Your task to perform on an android device: Clear the cart on amazon.com. Add razer blade to the cart on amazon.com Image 0: 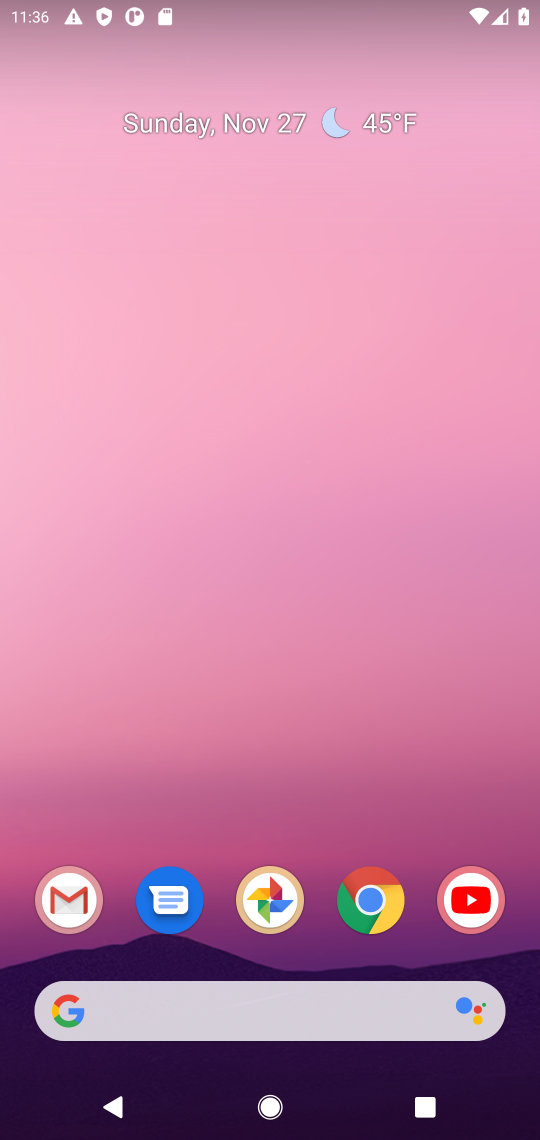
Step 0: click (374, 905)
Your task to perform on an android device: Clear the cart on amazon.com. Add razer blade to the cart on amazon.com Image 1: 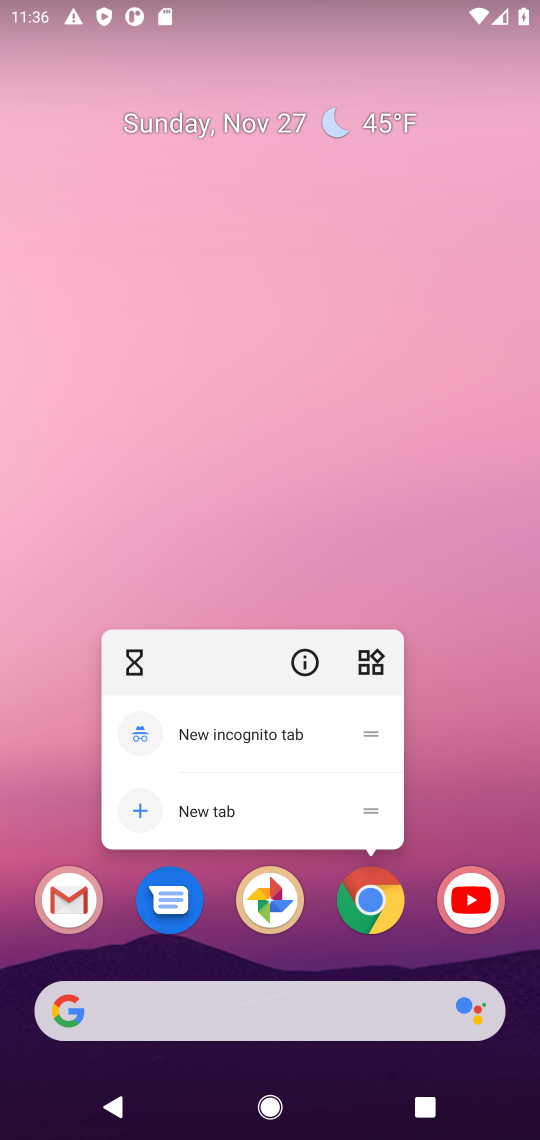
Step 1: click (371, 908)
Your task to perform on an android device: Clear the cart on amazon.com. Add razer blade to the cart on amazon.com Image 2: 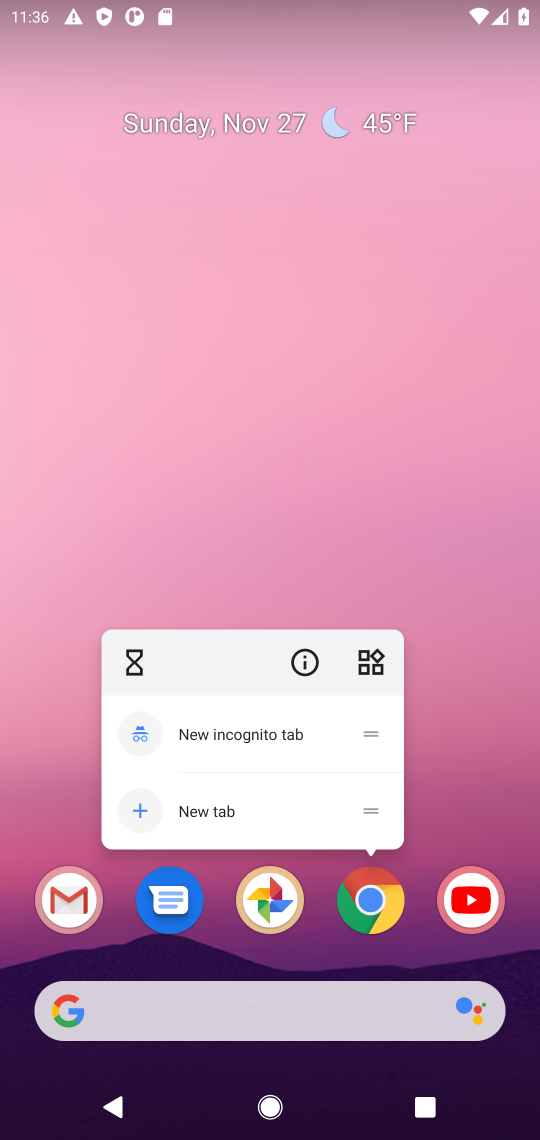
Step 2: click (371, 908)
Your task to perform on an android device: Clear the cart on amazon.com. Add razer blade to the cart on amazon.com Image 3: 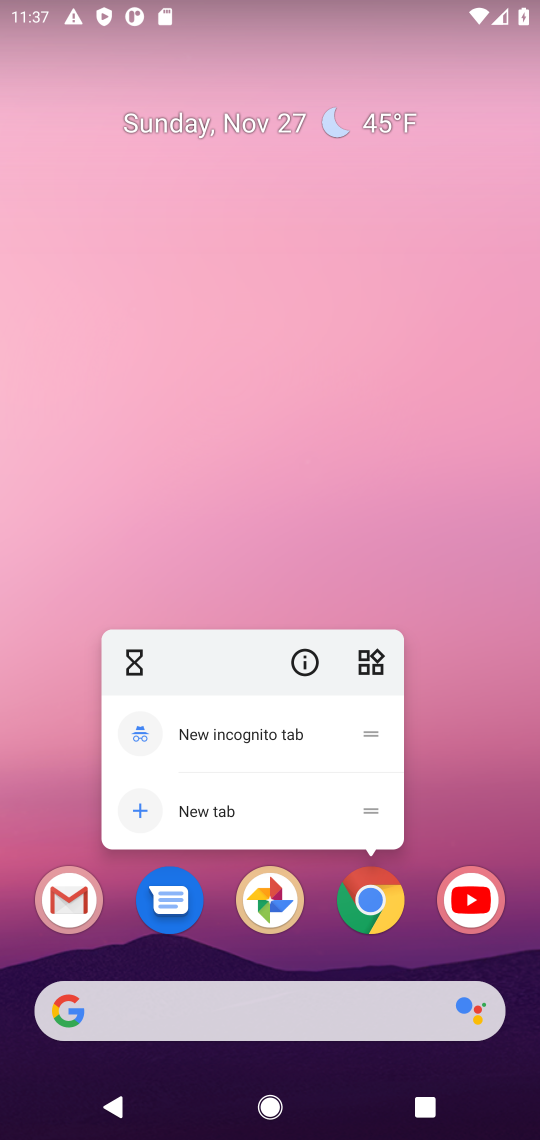
Step 3: click (359, 912)
Your task to perform on an android device: Clear the cart on amazon.com. Add razer blade to the cart on amazon.com Image 4: 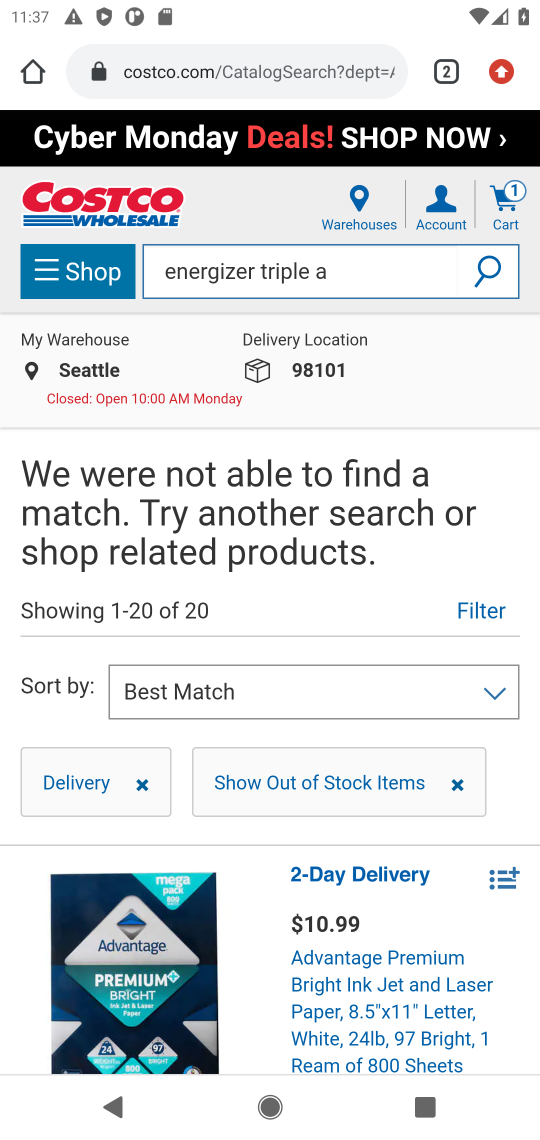
Step 4: click (192, 77)
Your task to perform on an android device: Clear the cart on amazon.com. Add razer blade to the cart on amazon.com Image 5: 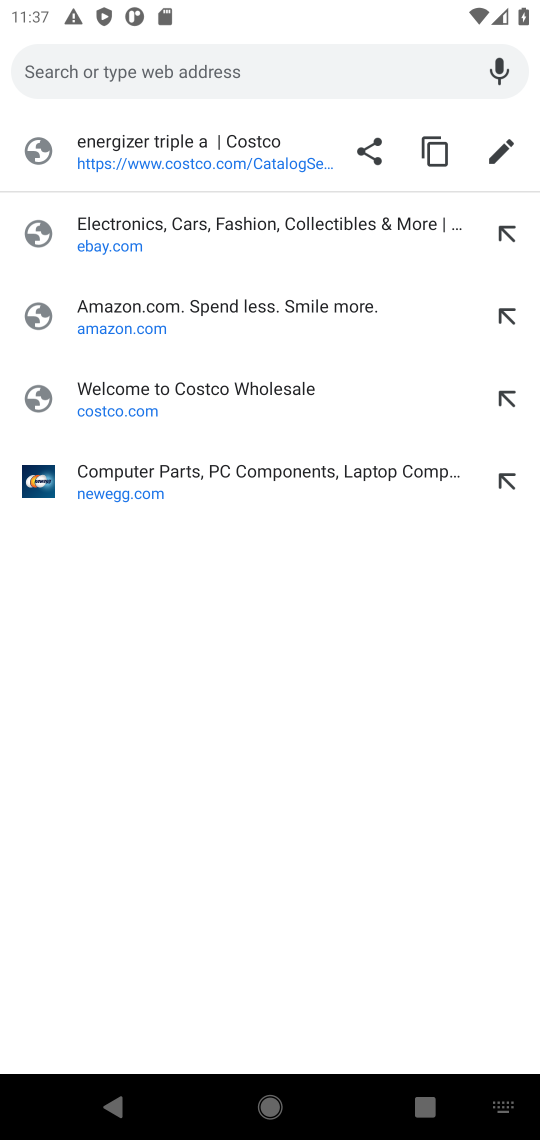
Step 5: click (95, 325)
Your task to perform on an android device: Clear the cart on amazon.com. Add razer blade to the cart on amazon.com Image 6: 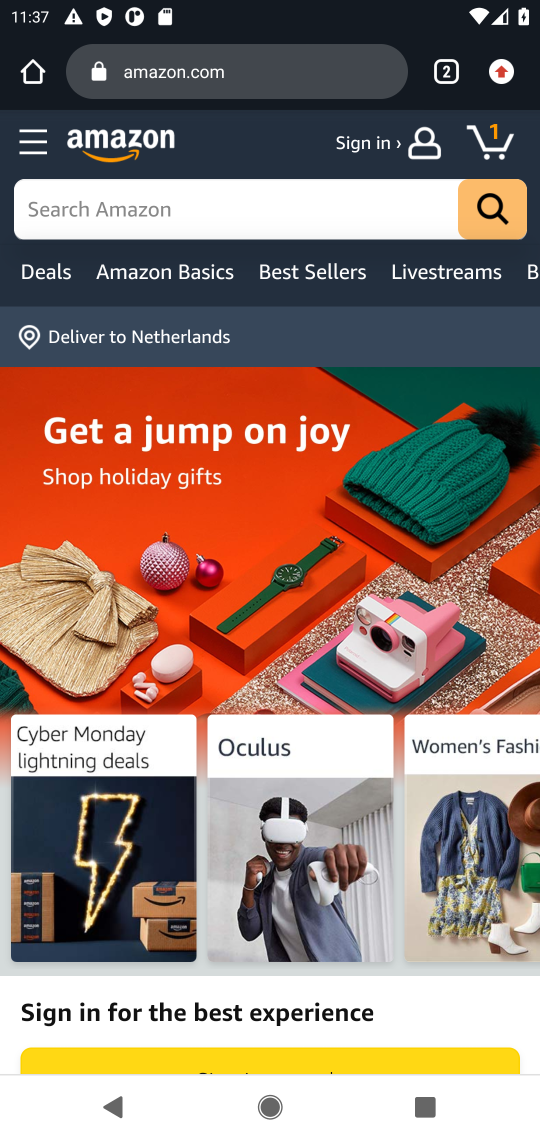
Step 6: click (489, 139)
Your task to perform on an android device: Clear the cart on amazon.com. Add razer blade to the cart on amazon.com Image 7: 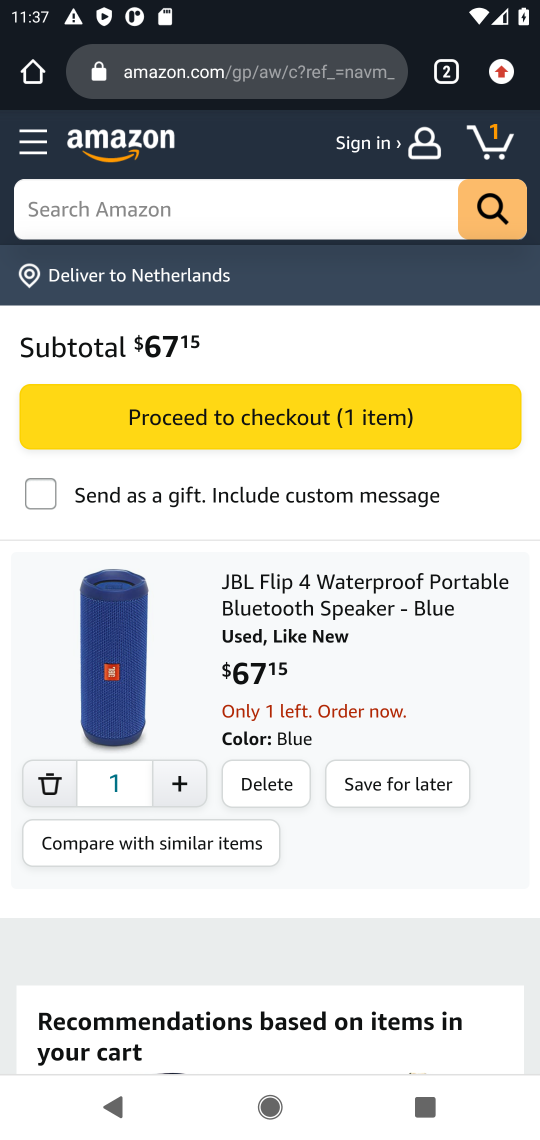
Step 7: click (268, 778)
Your task to perform on an android device: Clear the cart on amazon.com. Add razer blade to the cart on amazon.com Image 8: 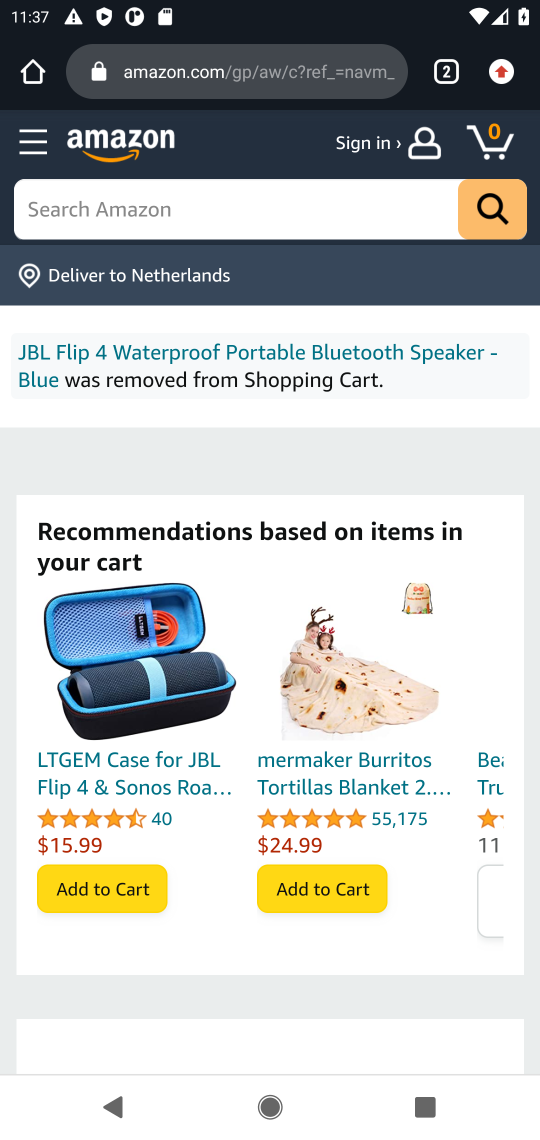
Step 8: click (137, 215)
Your task to perform on an android device: Clear the cart on amazon.com. Add razer blade to the cart on amazon.com Image 9: 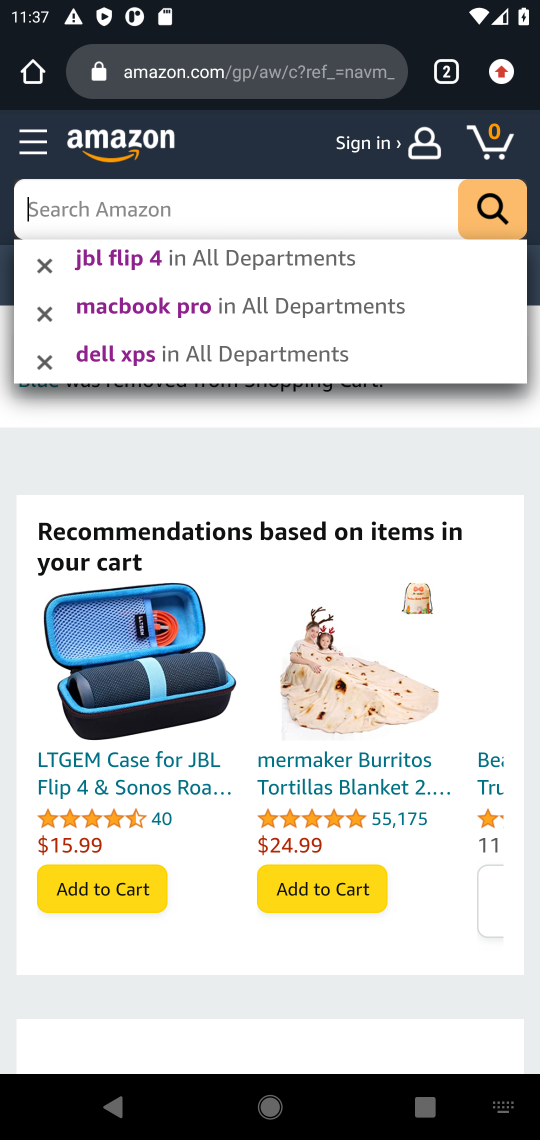
Step 9: type "razer blade"
Your task to perform on an android device: Clear the cart on amazon.com. Add razer blade to the cart on amazon.com Image 10: 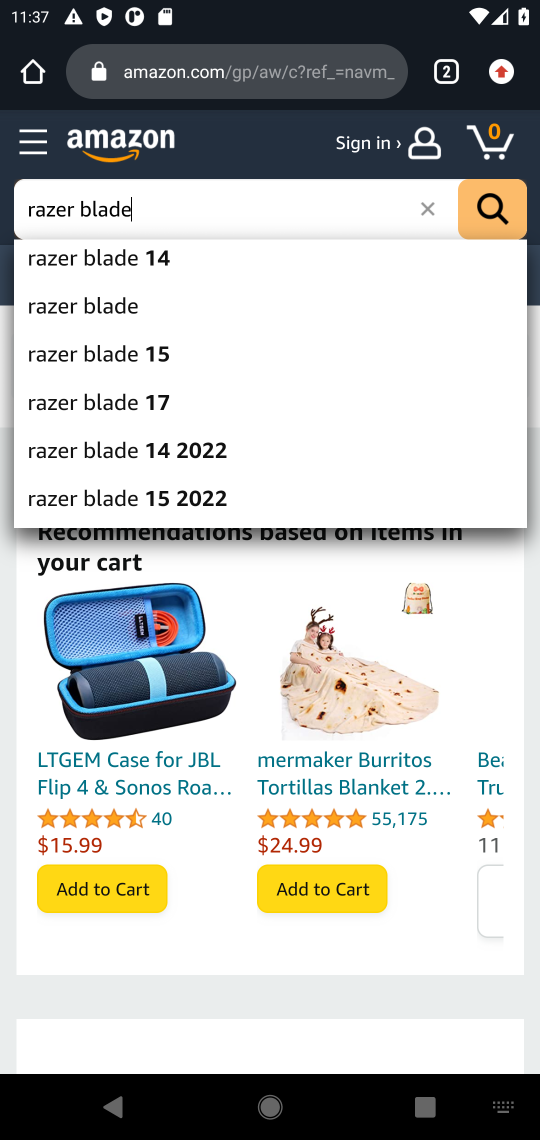
Step 10: click (89, 312)
Your task to perform on an android device: Clear the cart on amazon.com. Add razer blade to the cart on amazon.com Image 11: 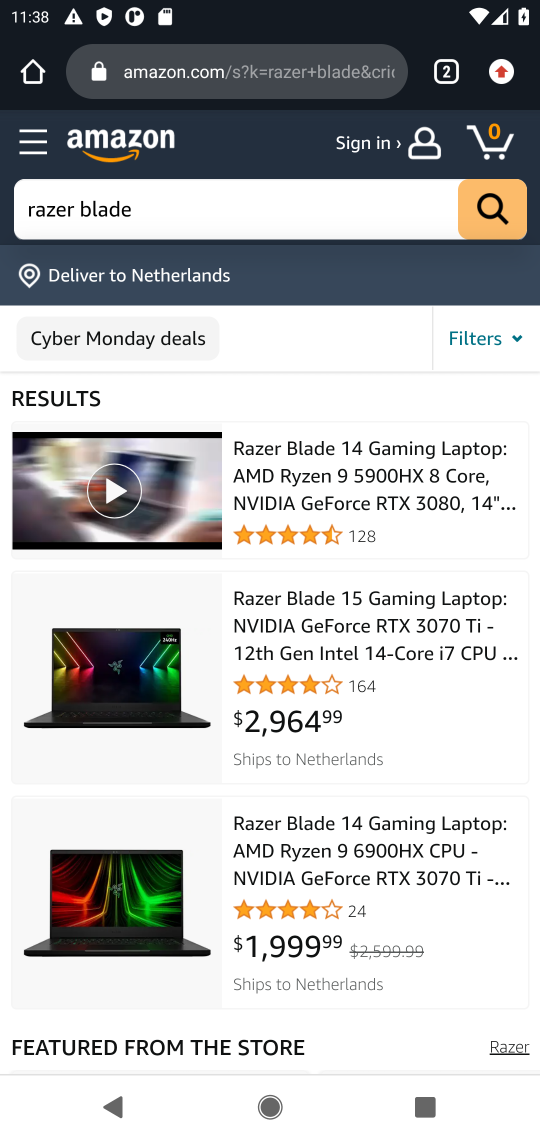
Step 11: click (247, 651)
Your task to perform on an android device: Clear the cart on amazon.com. Add razer blade to the cart on amazon.com Image 12: 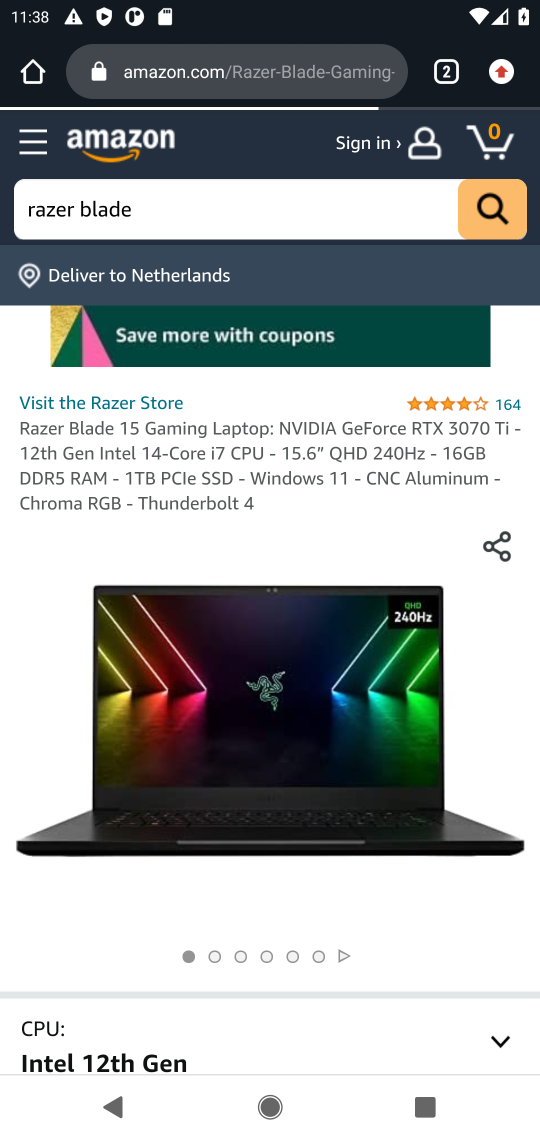
Step 12: drag from (372, 732) to (393, 414)
Your task to perform on an android device: Clear the cart on amazon.com. Add razer blade to the cart on amazon.com Image 13: 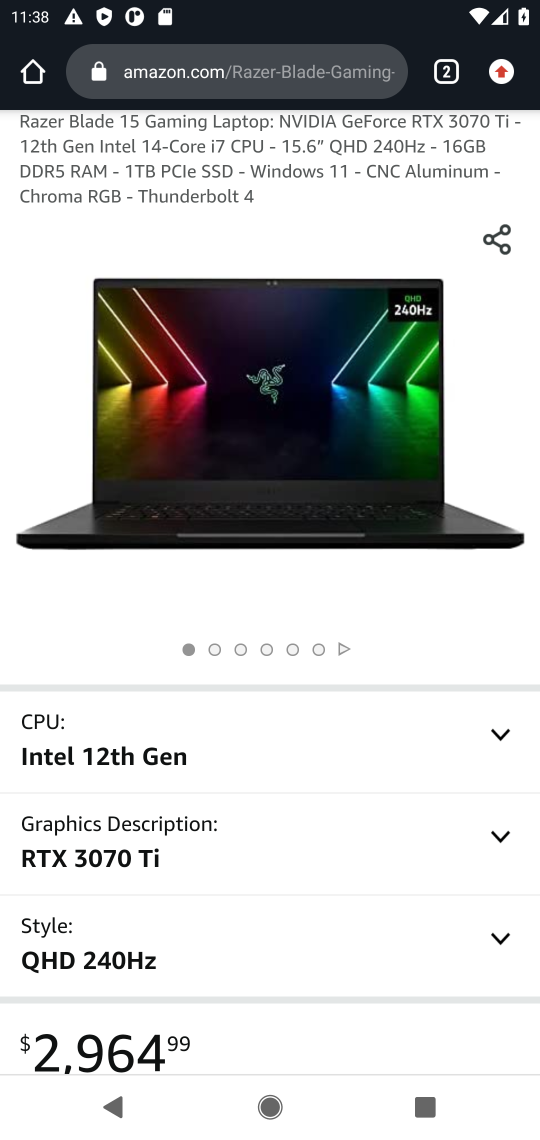
Step 13: drag from (349, 701) to (343, 415)
Your task to perform on an android device: Clear the cart on amazon.com. Add razer blade to the cart on amazon.com Image 14: 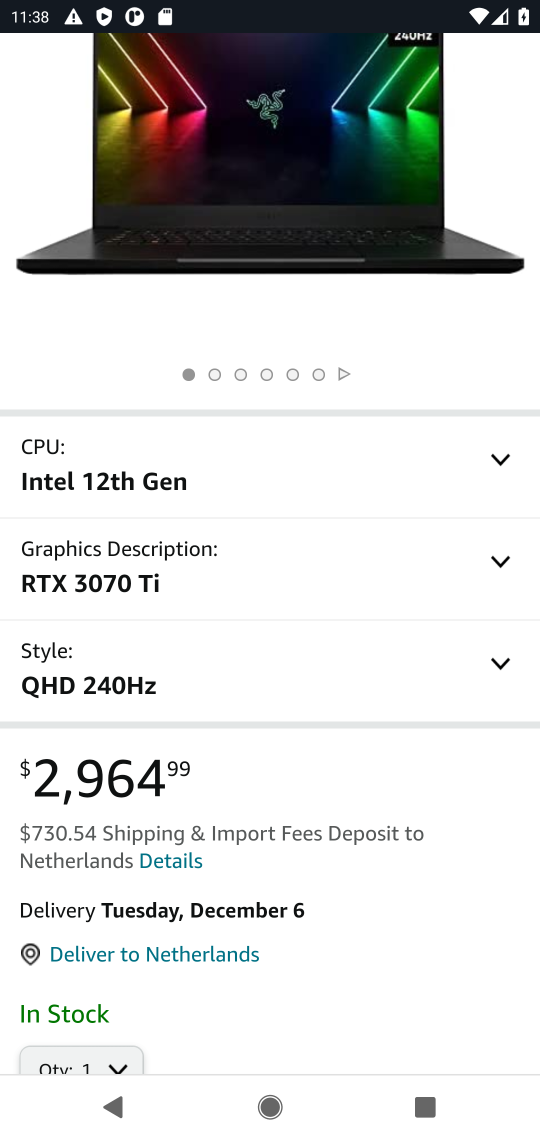
Step 14: drag from (287, 681) to (306, 453)
Your task to perform on an android device: Clear the cart on amazon.com. Add razer blade to the cart on amazon.com Image 15: 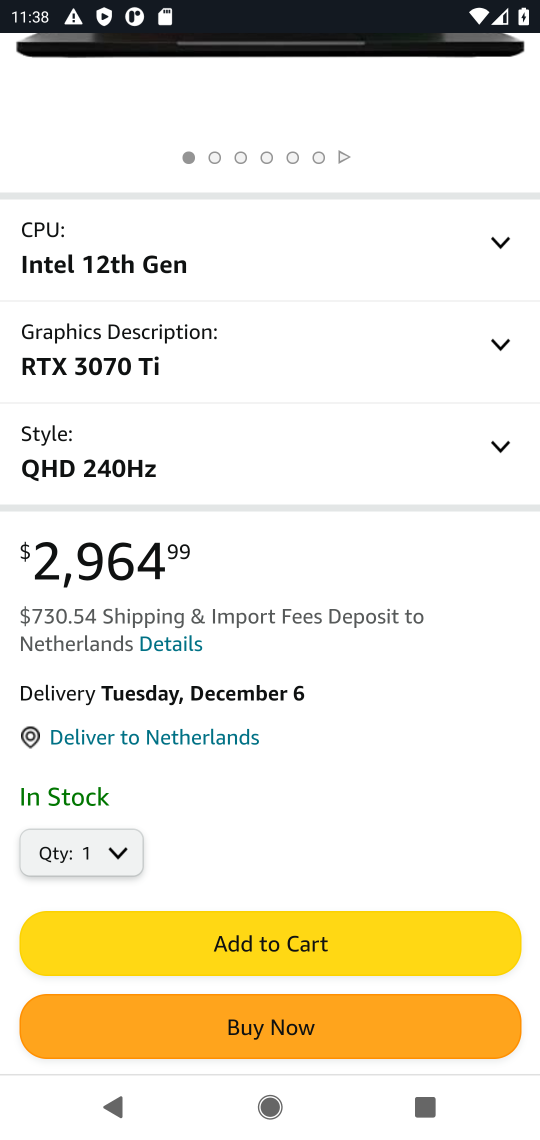
Step 15: click (238, 942)
Your task to perform on an android device: Clear the cart on amazon.com. Add razer blade to the cart on amazon.com Image 16: 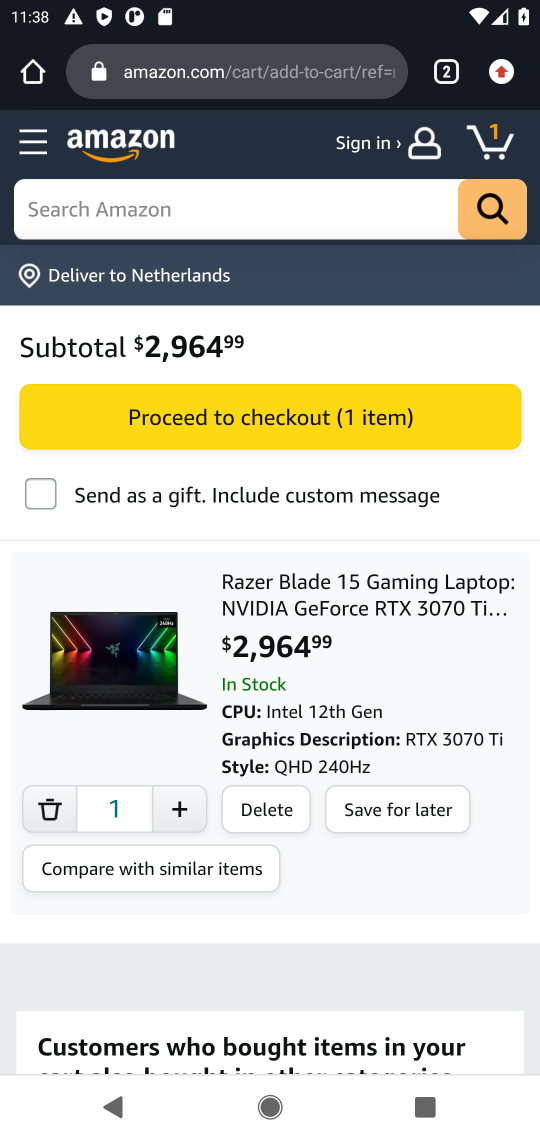
Step 16: task complete